Your task to perform on an android device: Check the news Image 0: 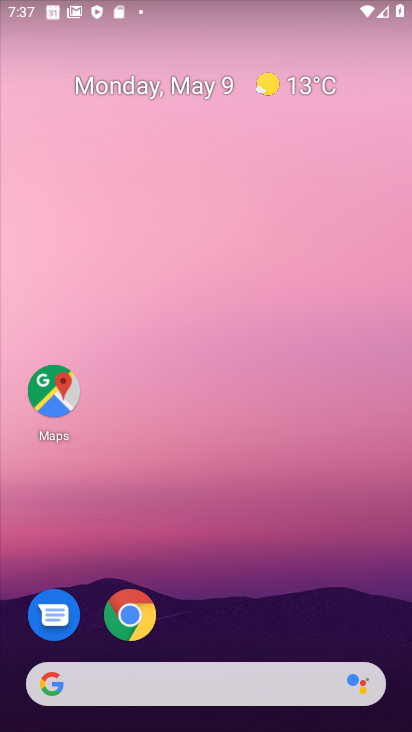
Step 0: click (156, 680)
Your task to perform on an android device: Check the news Image 1: 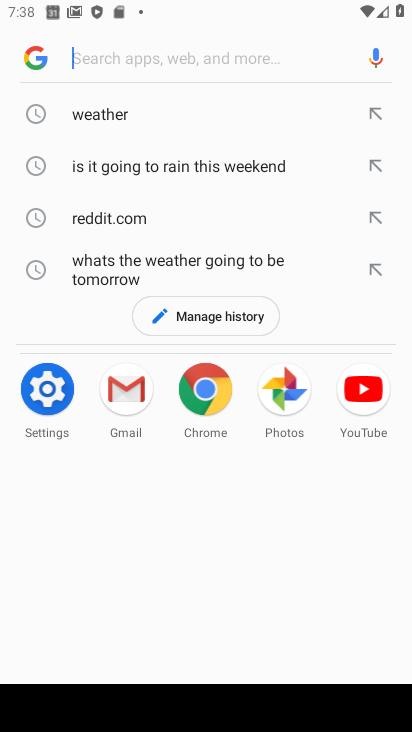
Step 1: click (37, 57)
Your task to perform on an android device: Check the news Image 2: 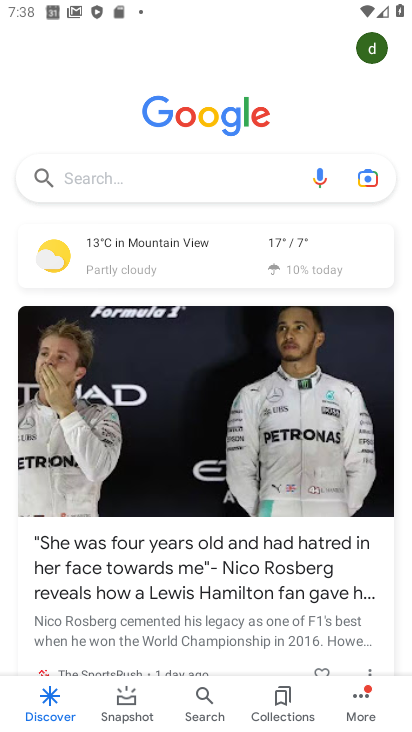
Step 2: task complete